Your task to perform on an android device: Go to Maps Image 0: 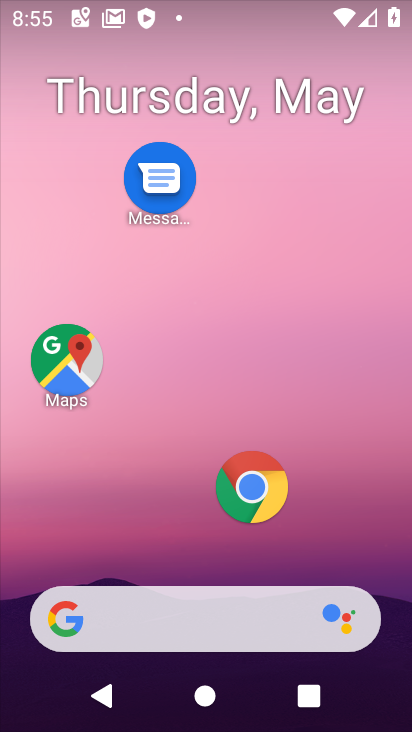
Step 0: click (45, 374)
Your task to perform on an android device: Go to Maps Image 1: 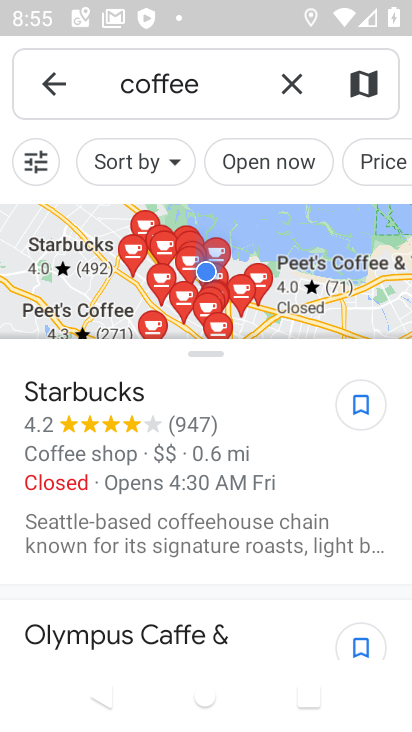
Step 1: task complete